Your task to perform on an android device: clear history in the chrome app Image 0: 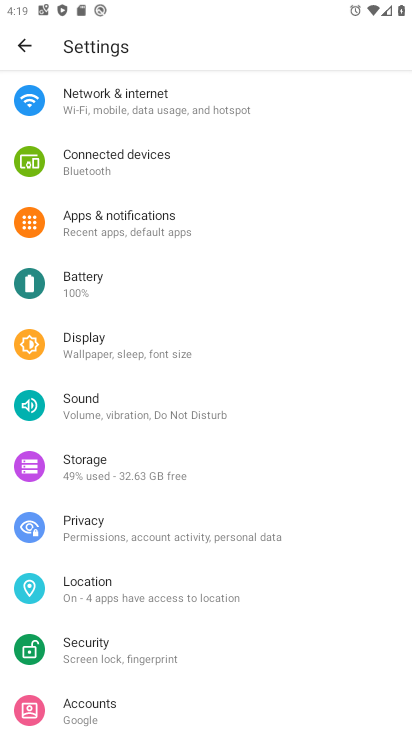
Step 0: press home button
Your task to perform on an android device: clear history in the chrome app Image 1: 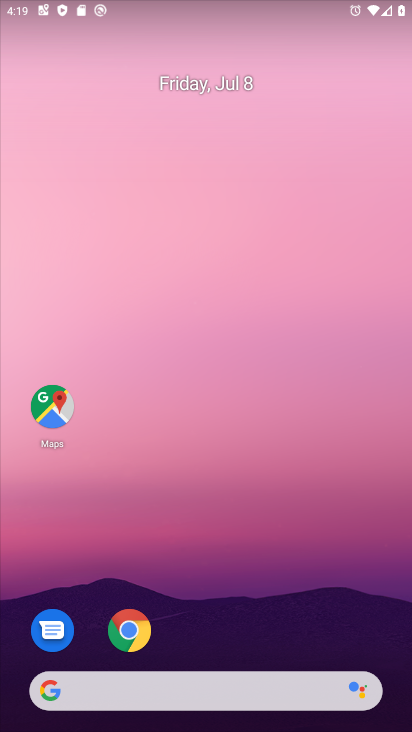
Step 1: click (130, 631)
Your task to perform on an android device: clear history in the chrome app Image 2: 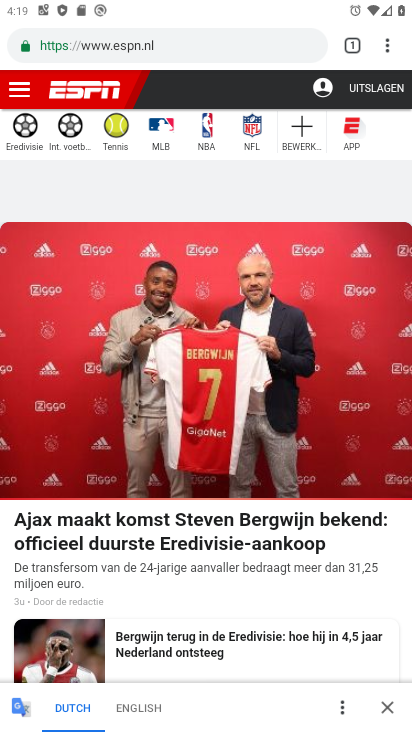
Step 2: click (385, 45)
Your task to perform on an android device: clear history in the chrome app Image 3: 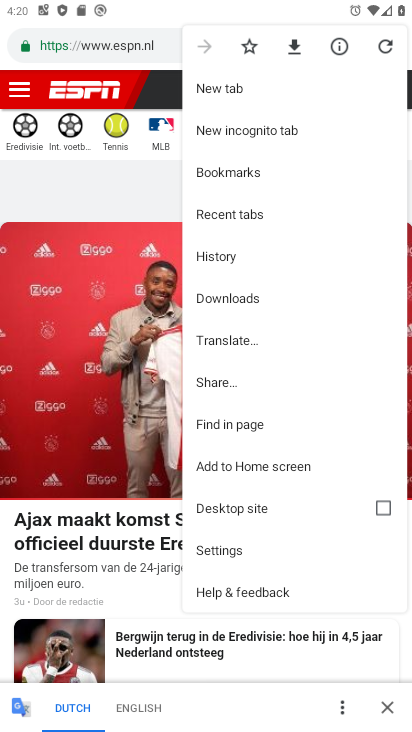
Step 3: click (232, 250)
Your task to perform on an android device: clear history in the chrome app Image 4: 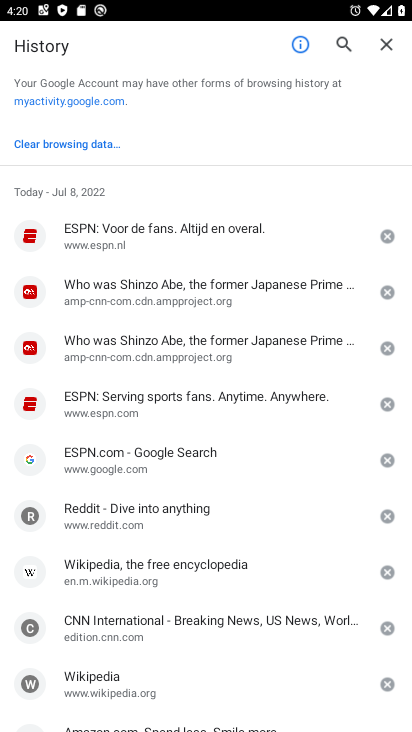
Step 4: click (87, 148)
Your task to perform on an android device: clear history in the chrome app Image 5: 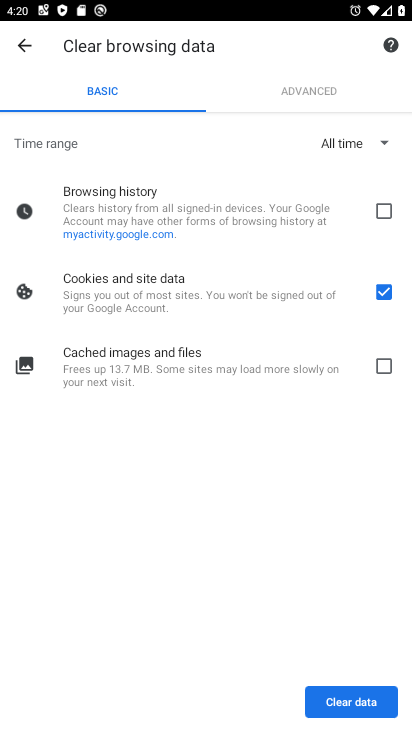
Step 5: click (383, 207)
Your task to perform on an android device: clear history in the chrome app Image 6: 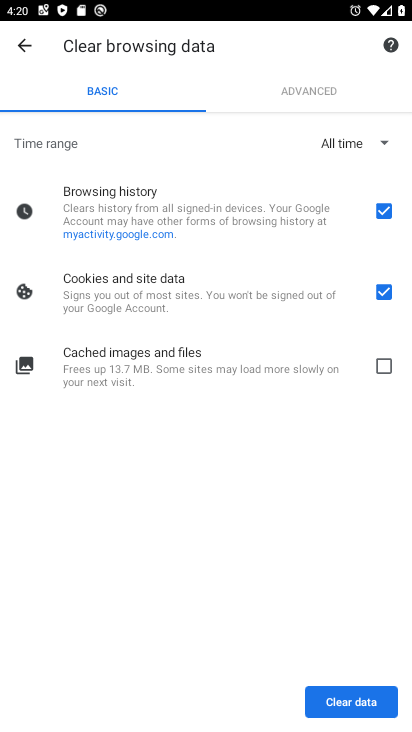
Step 6: click (383, 364)
Your task to perform on an android device: clear history in the chrome app Image 7: 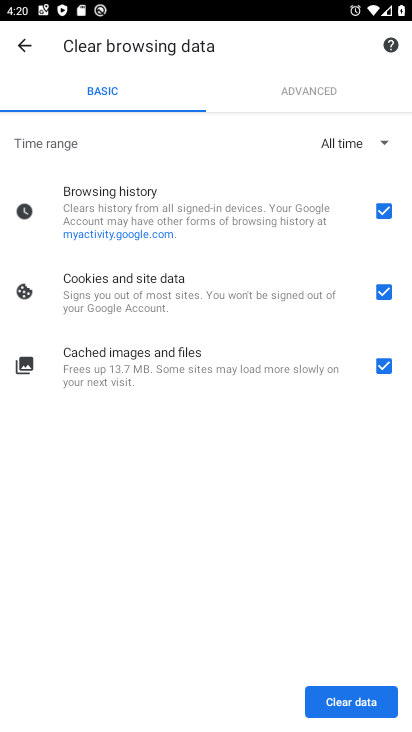
Step 7: click (347, 704)
Your task to perform on an android device: clear history in the chrome app Image 8: 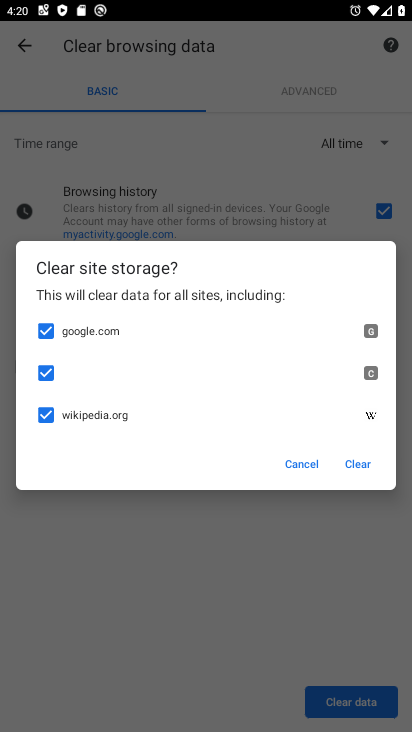
Step 8: click (356, 467)
Your task to perform on an android device: clear history in the chrome app Image 9: 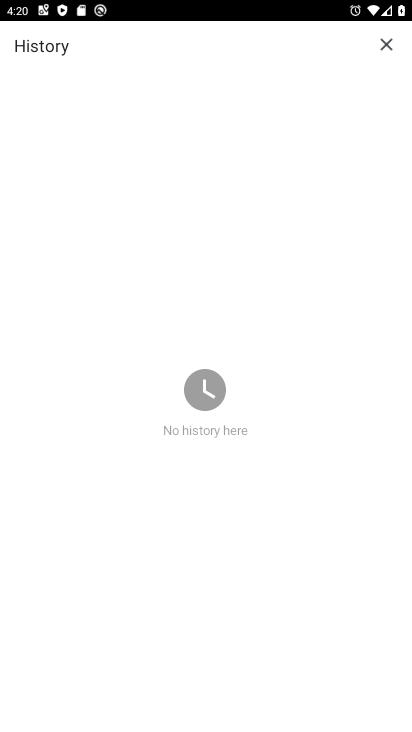
Step 9: task complete